Your task to perform on an android device: What's the weather going to be tomorrow? Image 0: 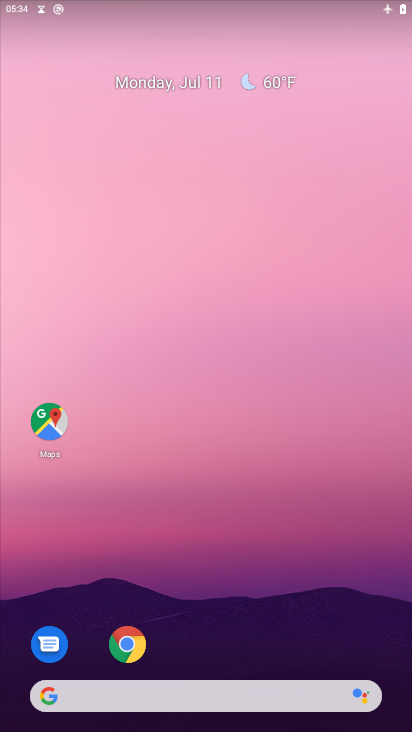
Step 0: drag from (169, 666) to (210, 375)
Your task to perform on an android device: What's the weather going to be tomorrow? Image 1: 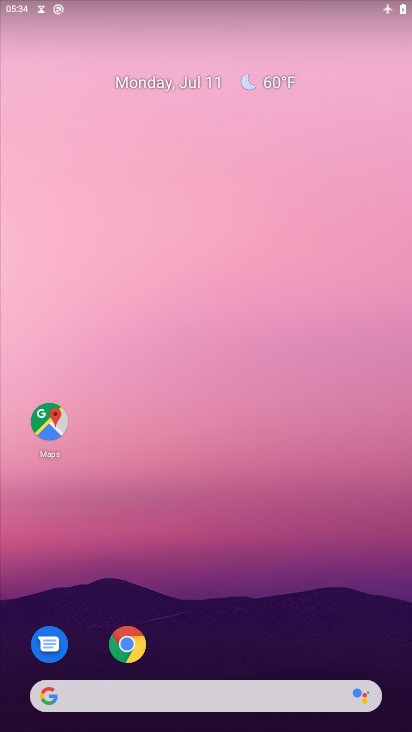
Step 1: drag from (238, 4) to (290, 292)
Your task to perform on an android device: What's the weather going to be tomorrow? Image 2: 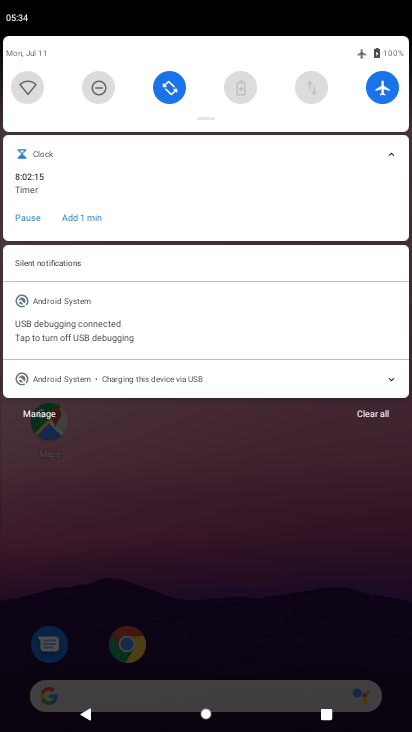
Step 2: click (377, 86)
Your task to perform on an android device: What's the weather going to be tomorrow? Image 3: 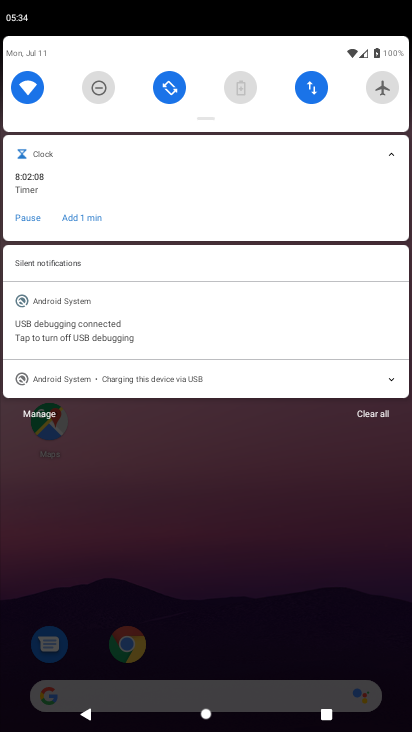
Step 3: click (369, 415)
Your task to perform on an android device: What's the weather going to be tomorrow? Image 4: 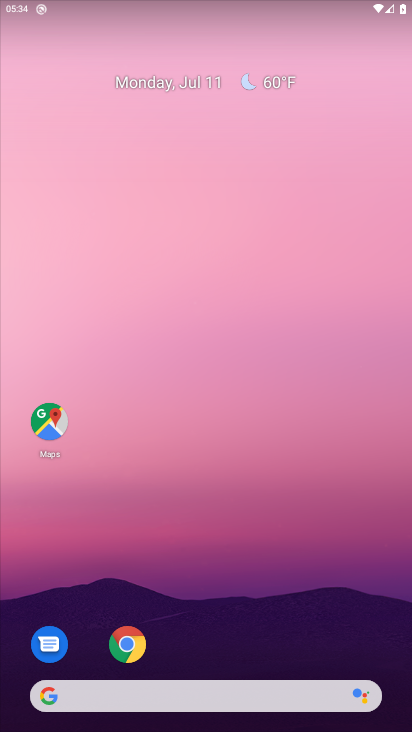
Step 4: drag from (194, 710) to (231, 388)
Your task to perform on an android device: What's the weather going to be tomorrow? Image 5: 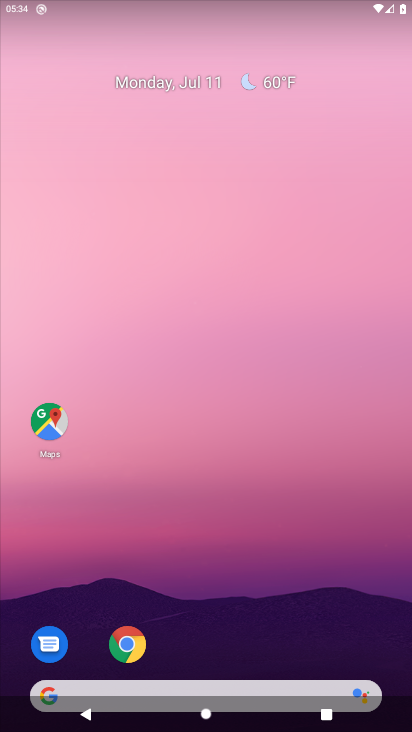
Step 5: drag from (236, 678) to (268, 370)
Your task to perform on an android device: What's the weather going to be tomorrow? Image 6: 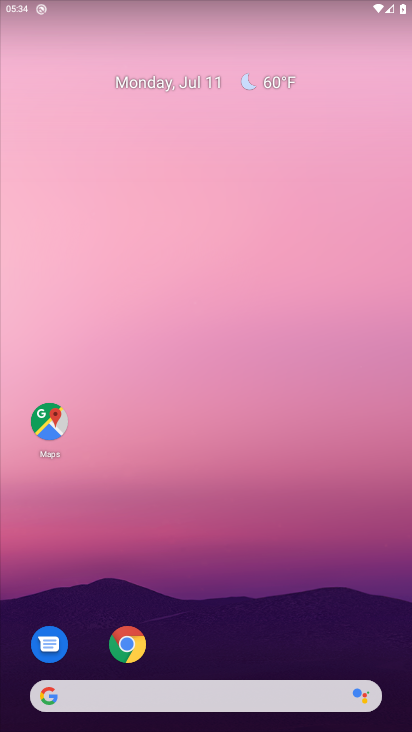
Step 6: drag from (209, 624) to (284, 164)
Your task to perform on an android device: What's the weather going to be tomorrow? Image 7: 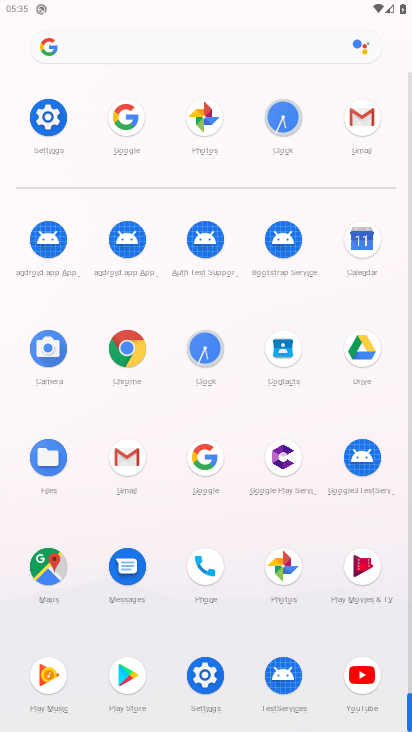
Step 7: click (130, 109)
Your task to perform on an android device: What's the weather going to be tomorrow? Image 8: 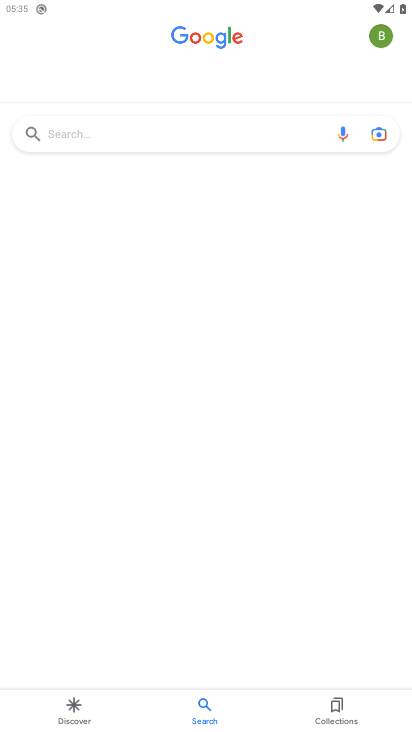
Step 8: click (133, 125)
Your task to perform on an android device: What's the weather going to be tomorrow? Image 9: 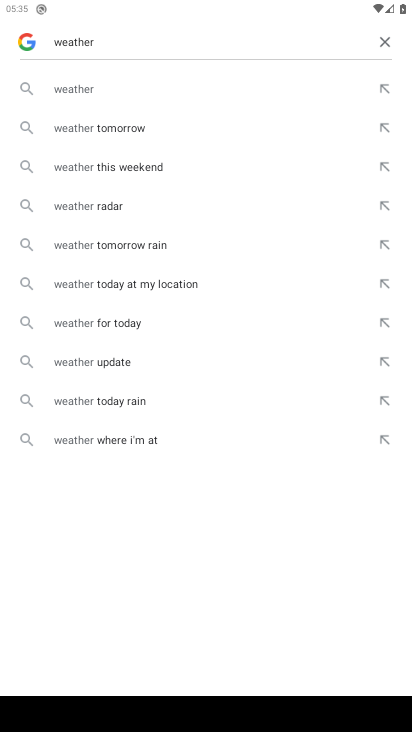
Step 9: click (90, 132)
Your task to perform on an android device: What's the weather going to be tomorrow? Image 10: 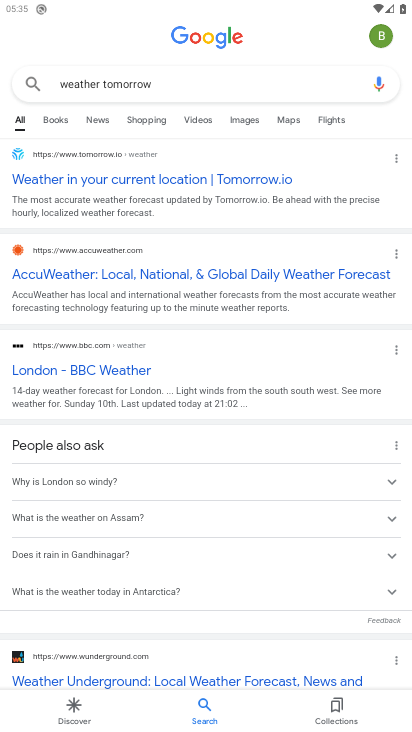
Step 10: click (136, 181)
Your task to perform on an android device: What's the weather going to be tomorrow? Image 11: 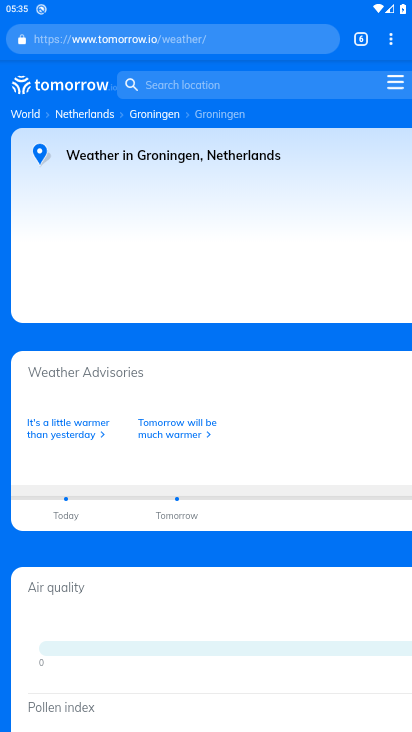
Step 11: task complete